Your task to perform on an android device: open the mobile data screen to see how much data has been used Image 0: 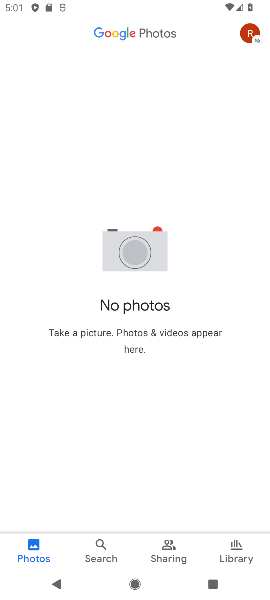
Step 0: drag from (233, 0) to (198, 569)
Your task to perform on an android device: open the mobile data screen to see how much data has been used Image 1: 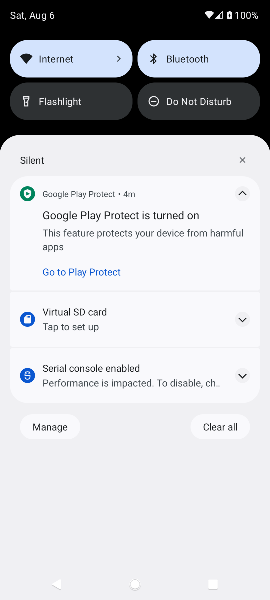
Step 1: drag from (126, 123) to (157, 566)
Your task to perform on an android device: open the mobile data screen to see how much data has been used Image 2: 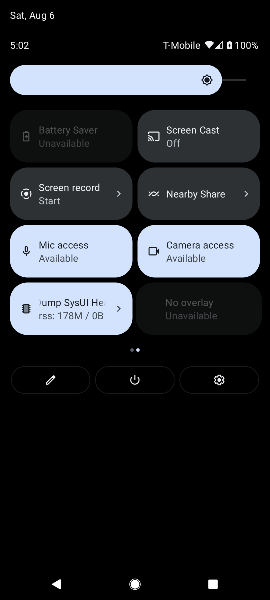
Step 2: click (224, 379)
Your task to perform on an android device: open the mobile data screen to see how much data has been used Image 3: 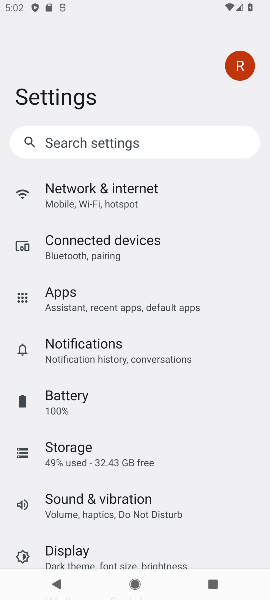
Step 3: click (114, 178)
Your task to perform on an android device: open the mobile data screen to see how much data has been used Image 4: 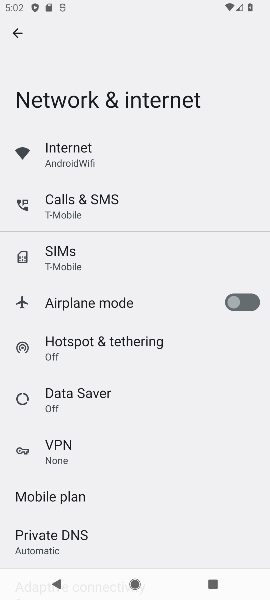
Step 4: click (76, 163)
Your task to perform on an android device: open the mobile data screen to see how much data has been used Image 5: 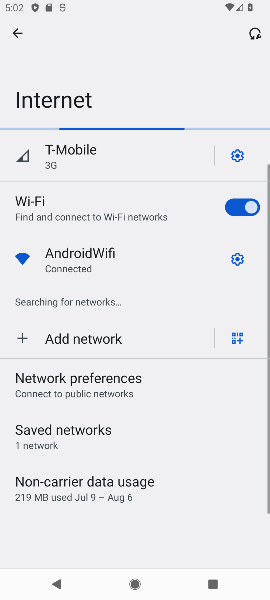
Step 5: click (107, 486)
Your task to perform on an android device: open the mobile data screen to see how much data has been used Image 6: 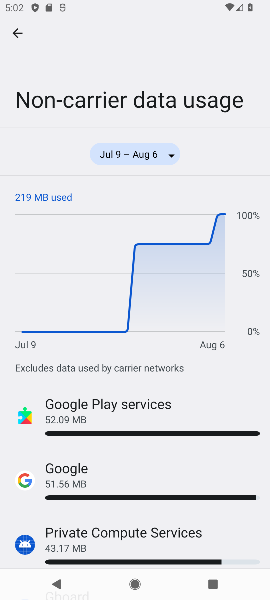
Step 6: task complete